Your task to perform on an android device: Open accessibility settings Image 0: 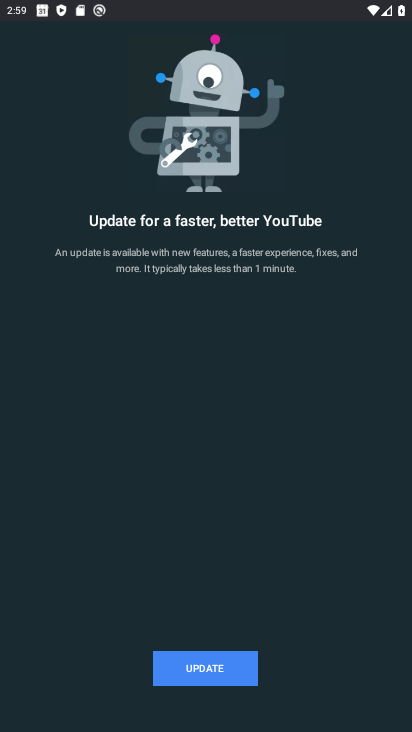
Step 0: press back button
Your task to perform on an android device: Open accessibility settings Image 1: 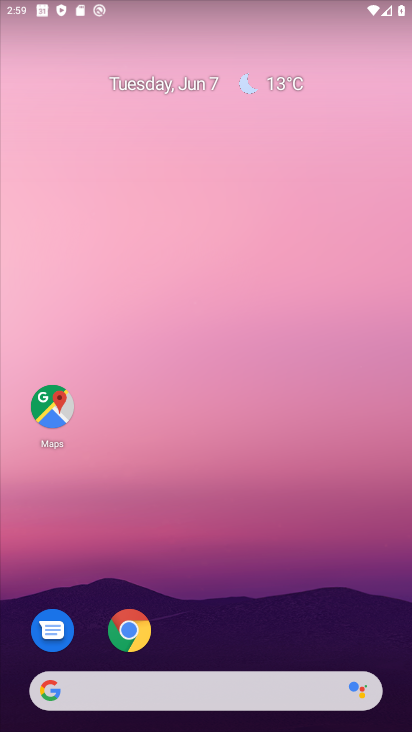
Step 1: drag from (203, 673) to (221, 309)
Your task to perform on an android device: Open accessibility settings Image 2: 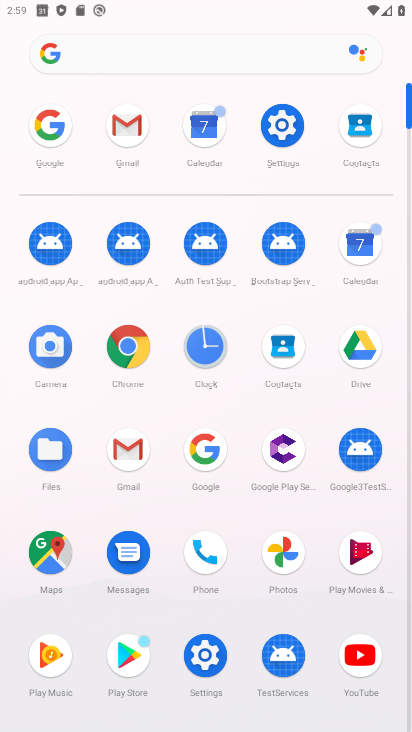
Step 2: click (295, 139)
Your task to perform on an android device: Open accessibility settings Image 3: 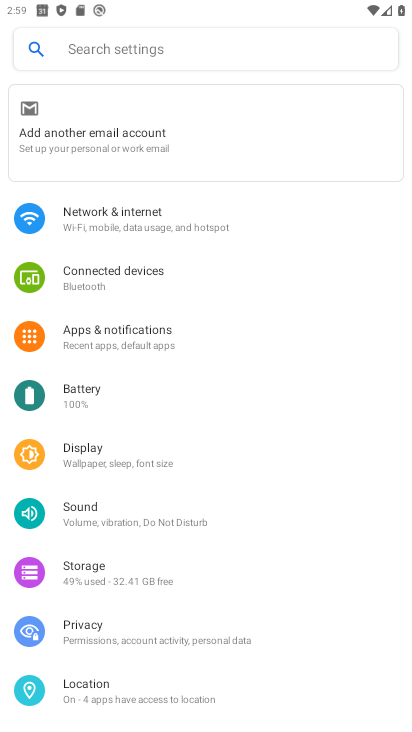
Step 3: drag from (220, 572) to (250, 120)
Your task to perform on an android device: Open accessibility settings Image 4: 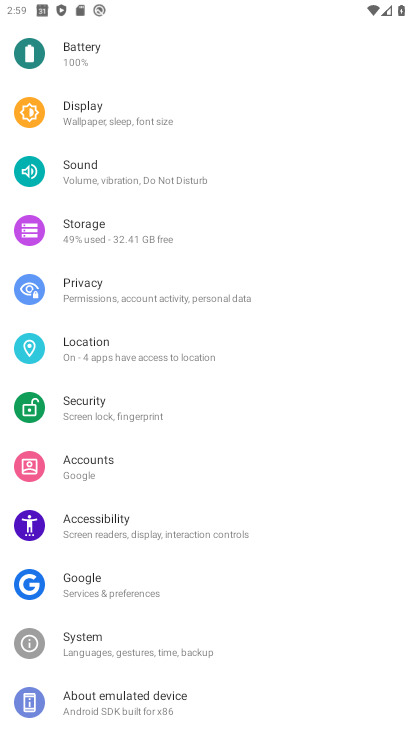
Step 4: click (121, 539)
Your task to perform on an android device: Open accessibility settings Image 5: 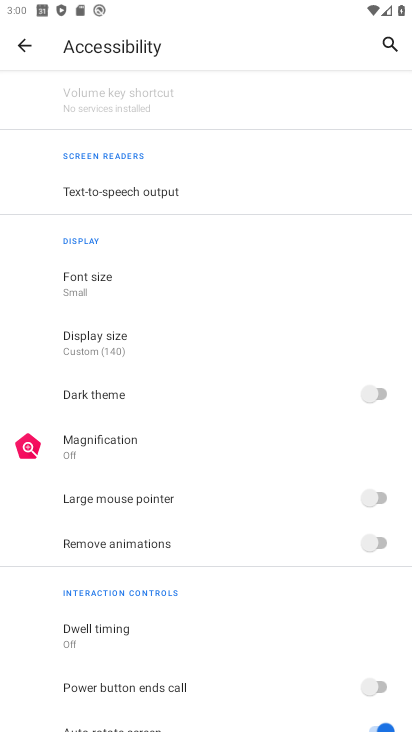
Step 5: task complete